Your task to perform on an android device: install app "WhatsApp Messenger" Image 0: 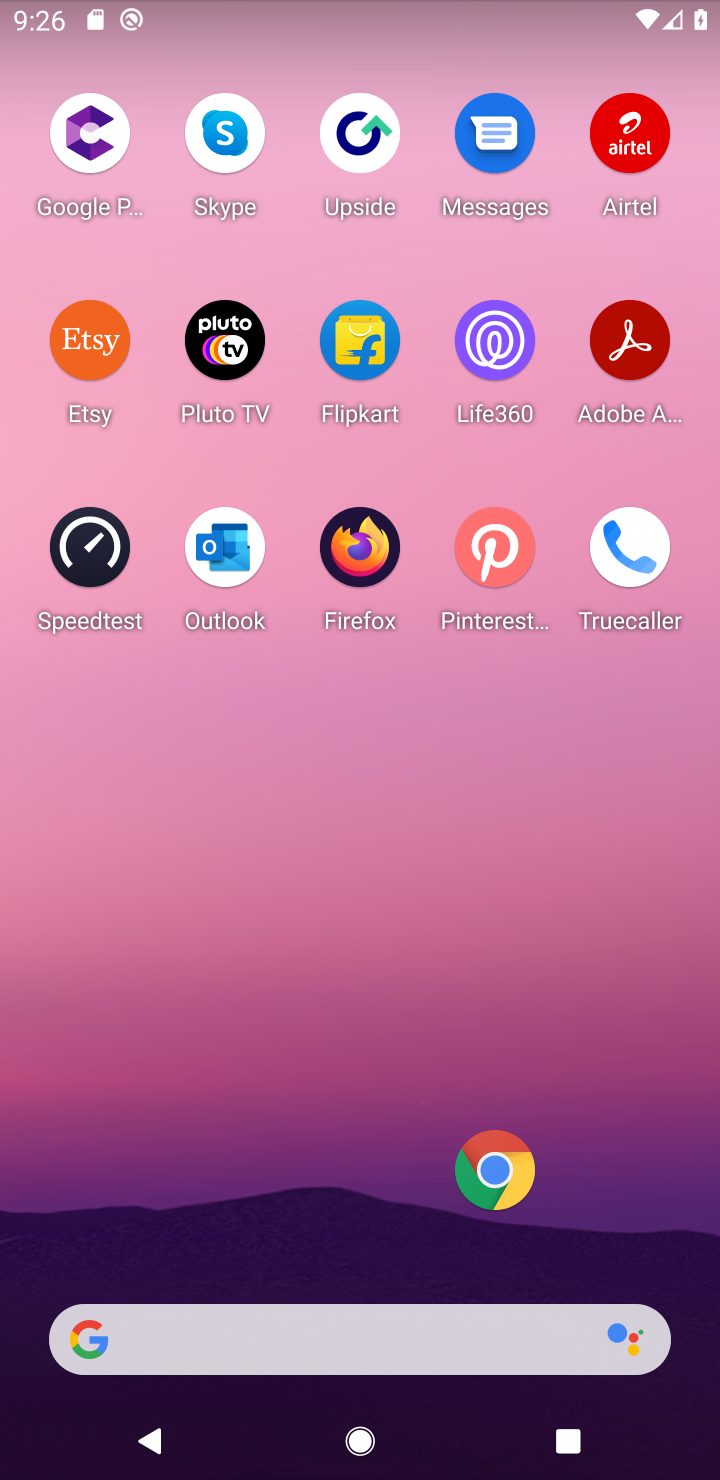
Step 0: drag from (258, 686) to (363, 5)
Your task to perform on an android device: install app "WhatsApp Messenger" Image 1: 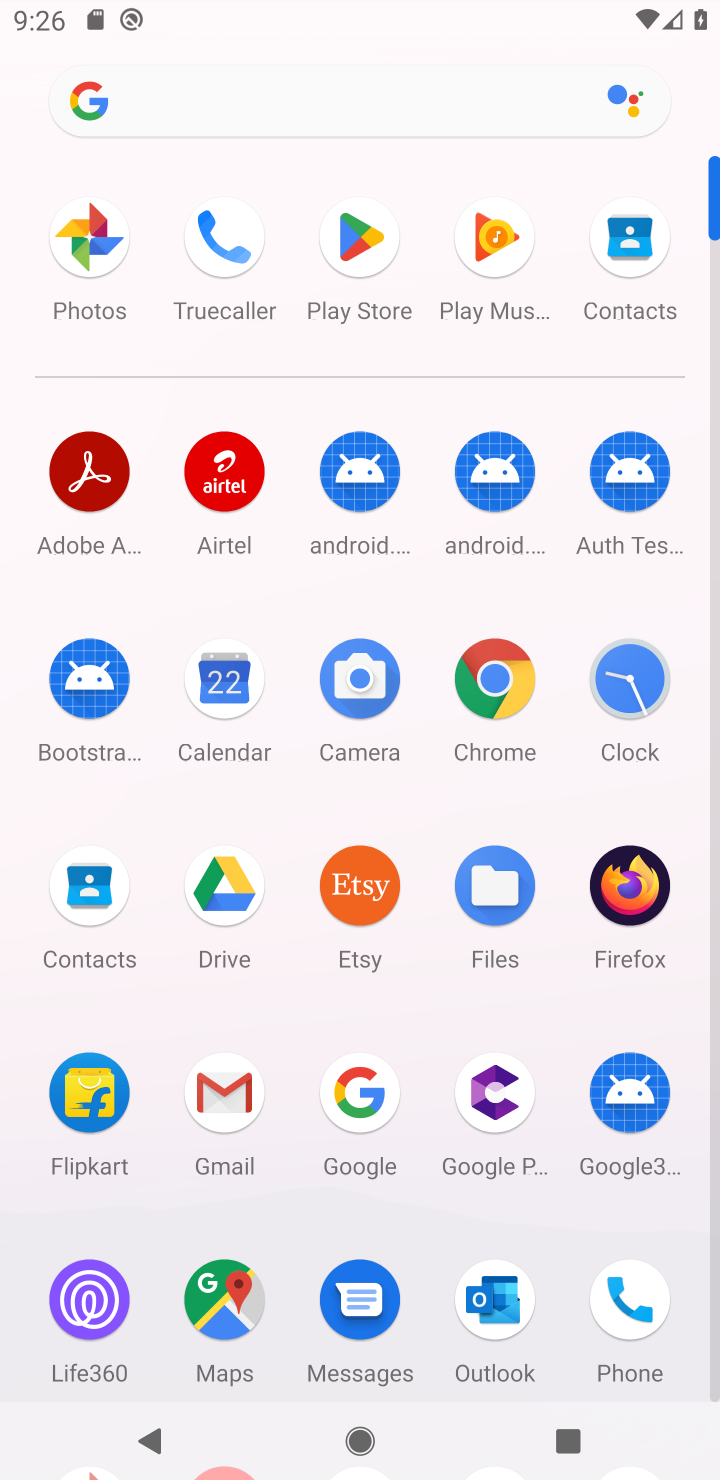
Step 1: click (368, 254)
Your task to perform on an android device: install app "WhatsApp Messenger" Image 2: 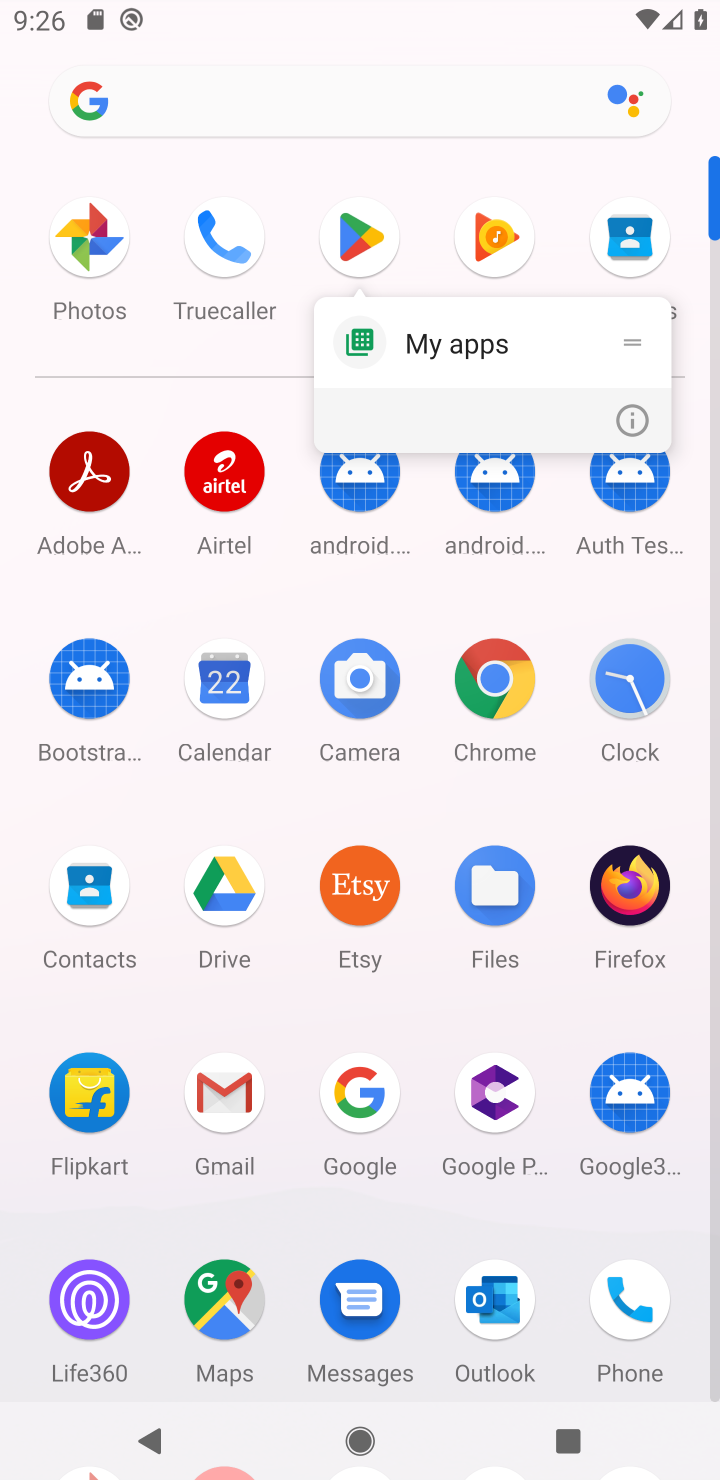
Step 2: click (334, 238)
Your task to perform on an android device: install app "WhatsApp Messenger" Image 3: 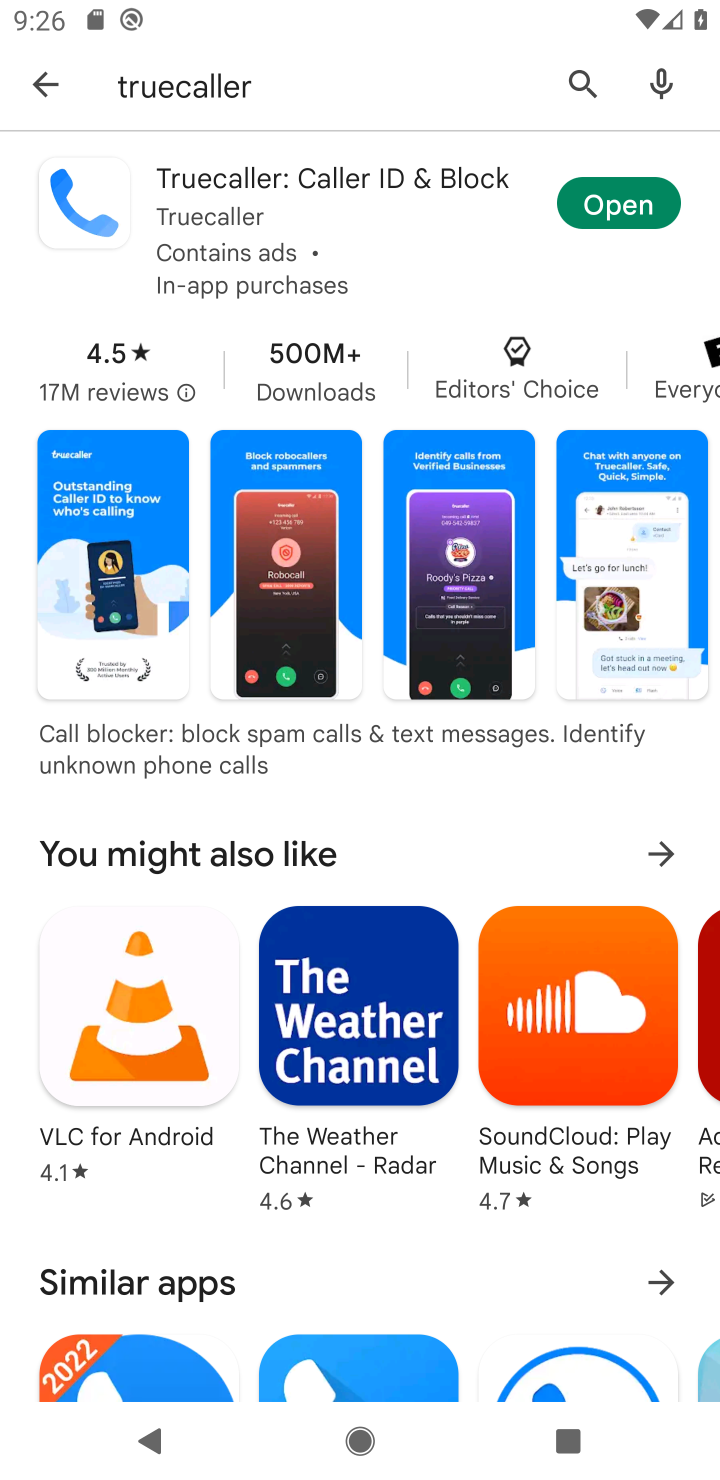
Step 3: click (602, 77)
Your task to perform on an android device: install app "WhatsApp Messenger" Image 4: 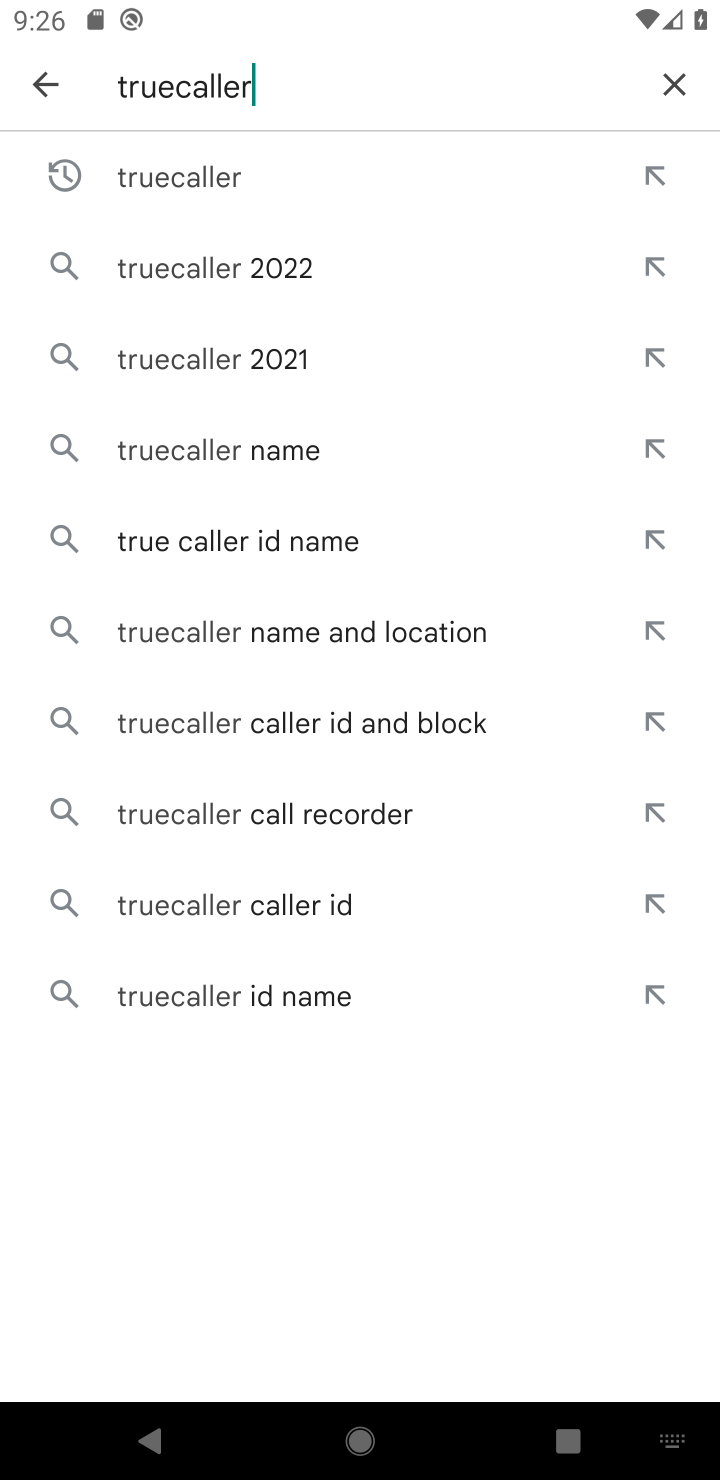
Step 4: click (699, 80)
Your task to perform on an android device: install app "WhatsApp Messenger" Image 5: 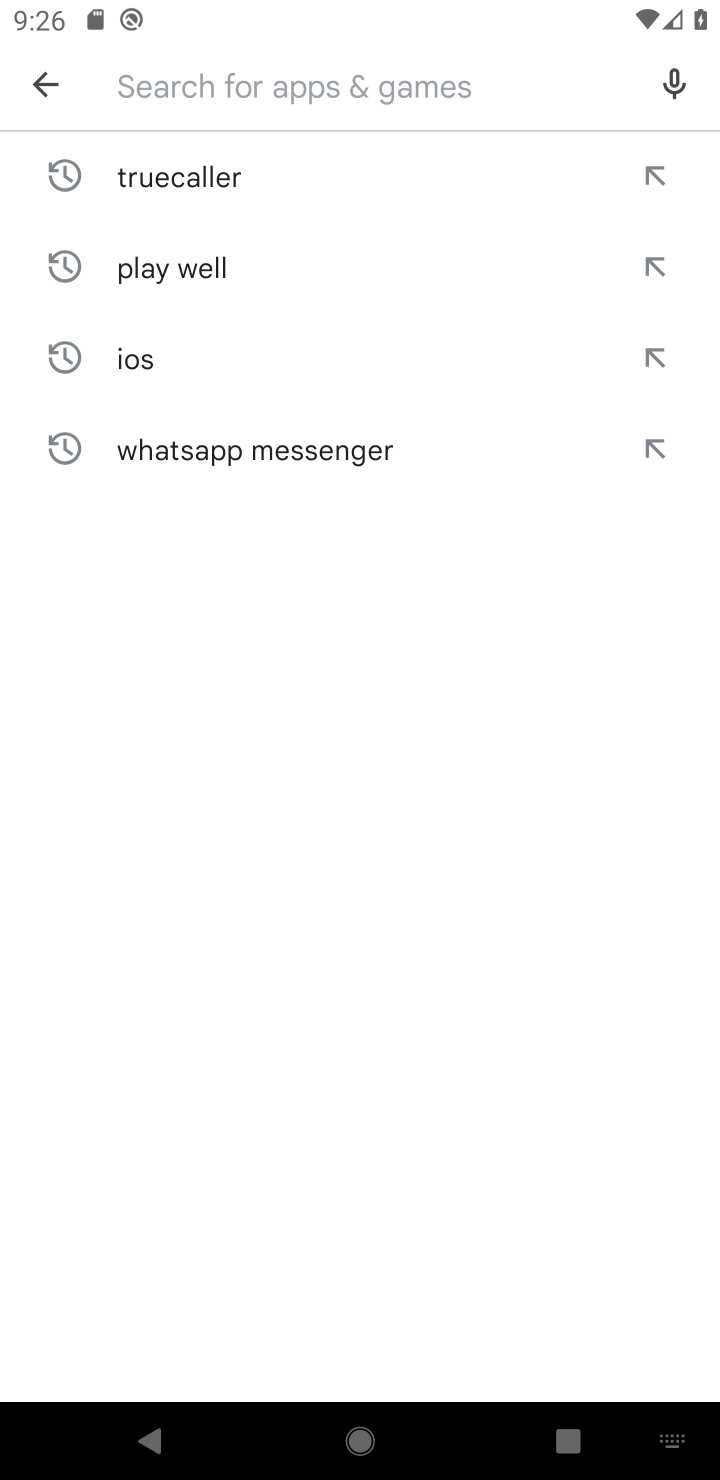
Step 5: click (237, 84)
Your task to perform on an android device: install app "WhatsApp Messenger" Image 6: 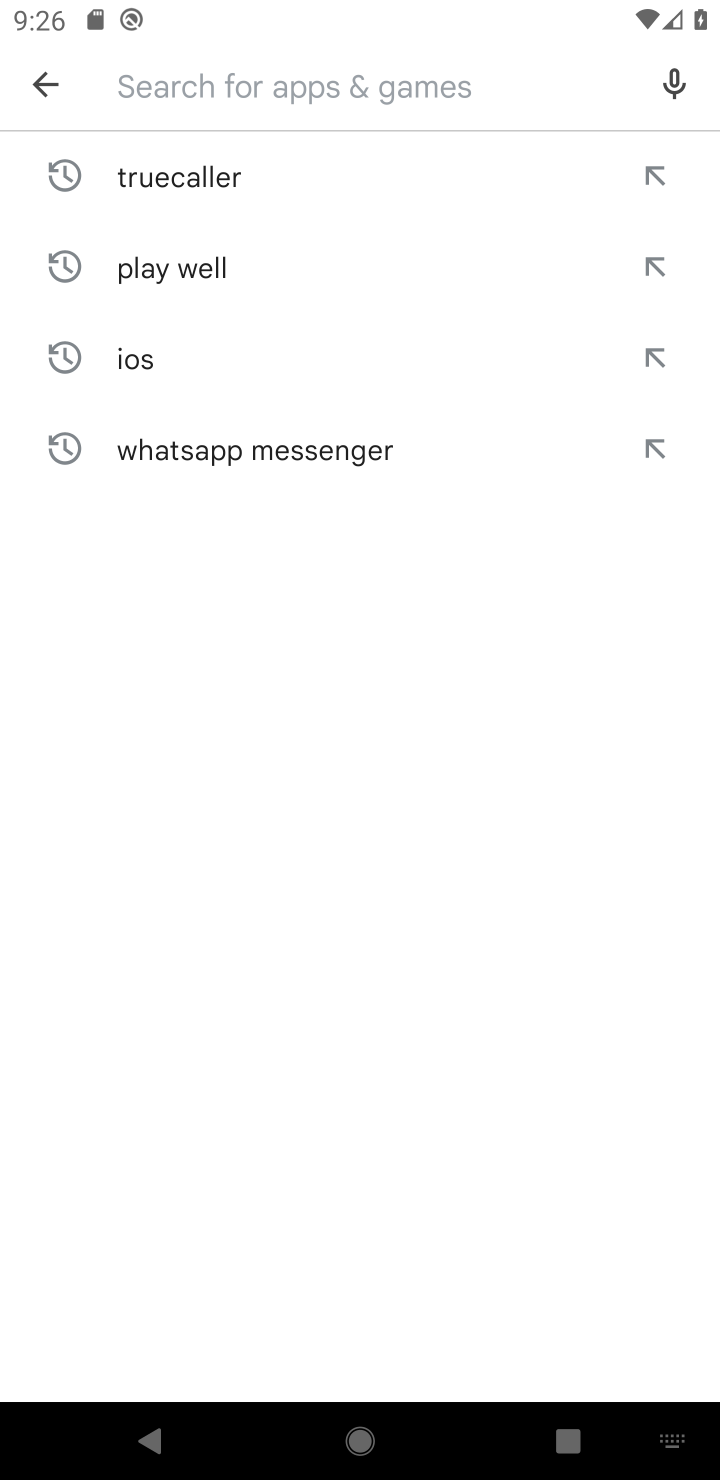
Step 6: type "whatsapp"
Your task to perform on an android device: install app "WhatsApp Messenger" Image 7: 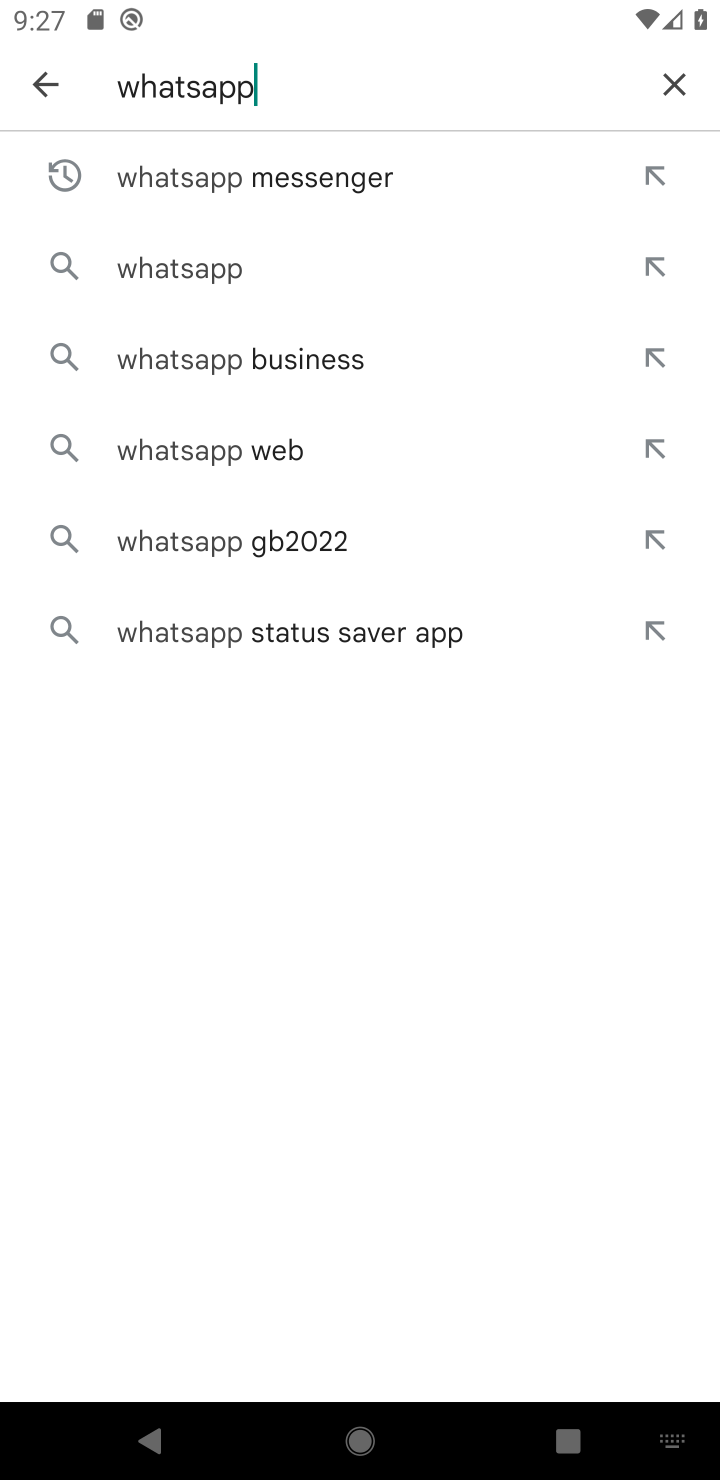
Step 7: click (185, 182)
Your task to perform on an android device: install app "WhatsApp Messenger" Image 8: 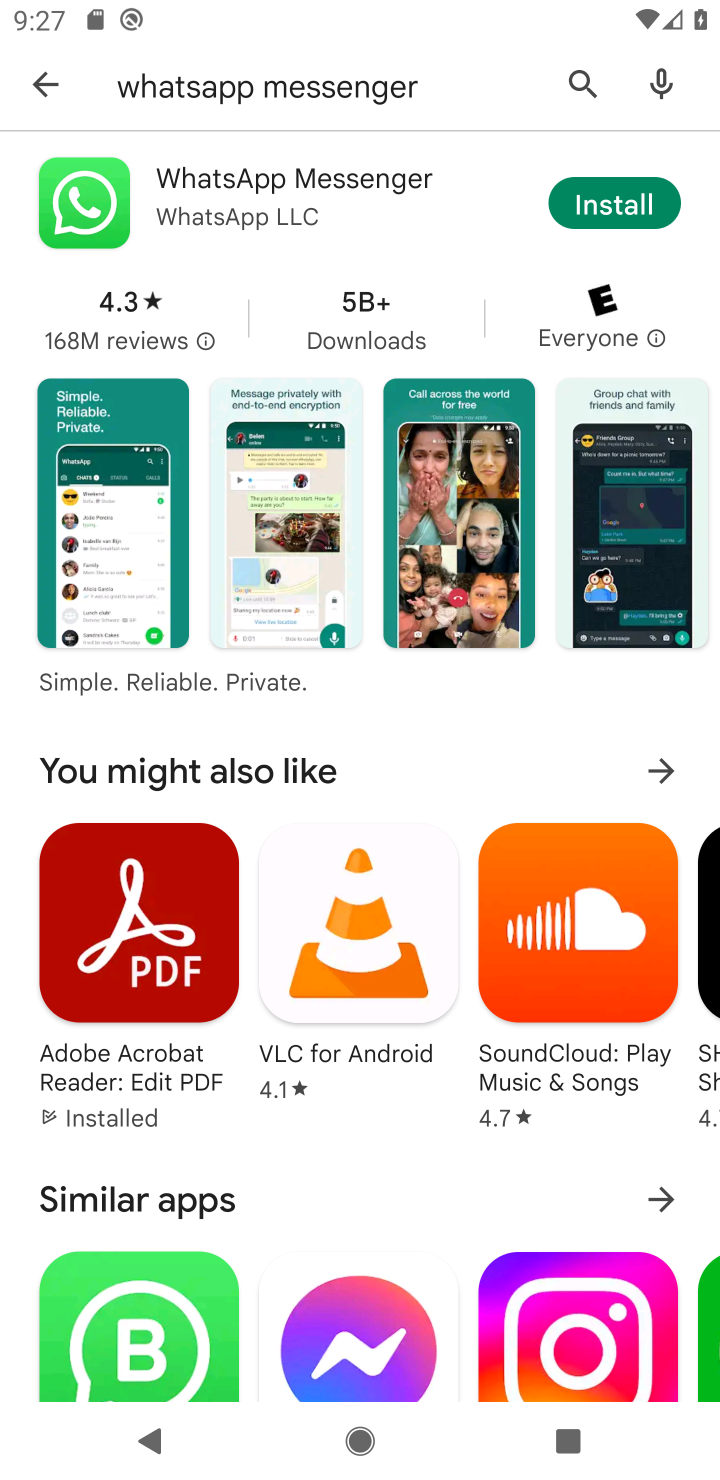
Step 8: click (632, 207)
Your task to perform on an android device: install app "WhatsApp Messenger" Image 9: 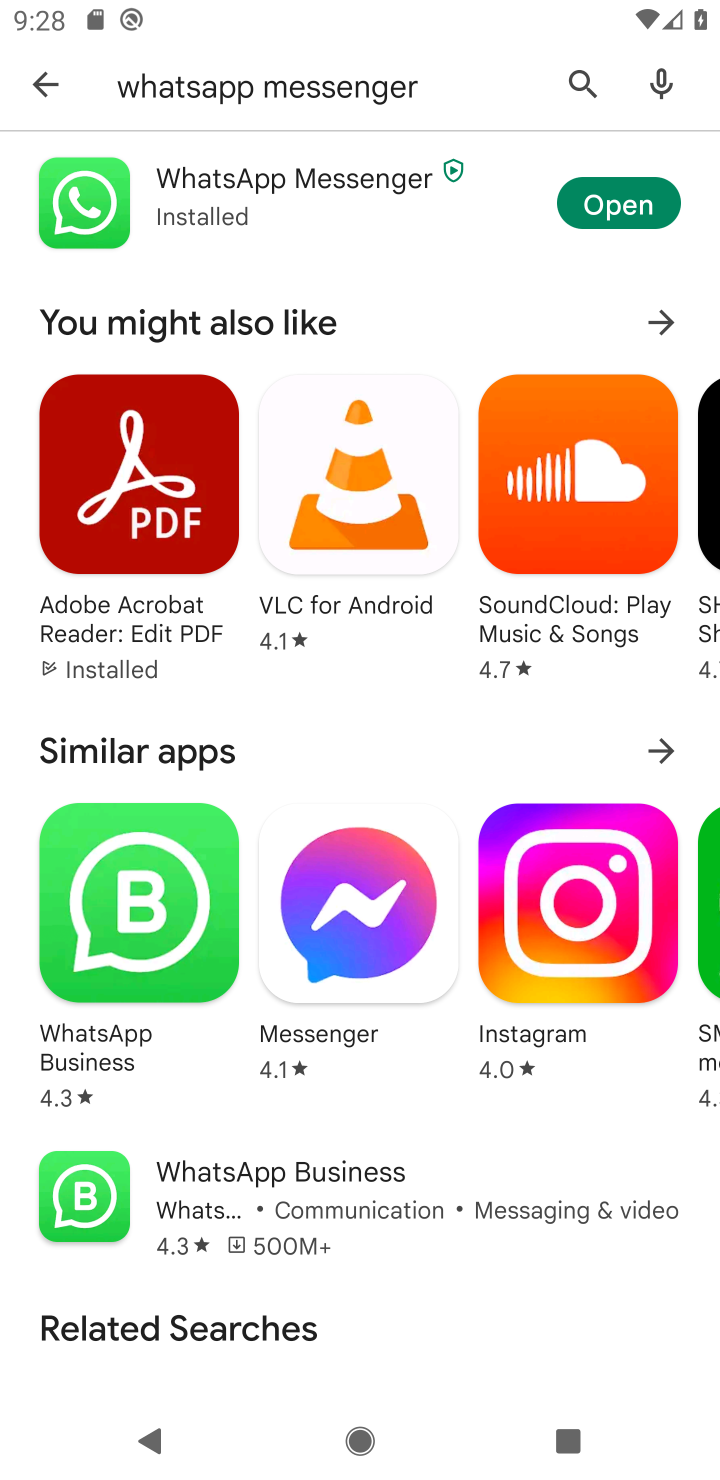
Step 9: task complete